Your task to perform on an android device: empty trash in the gmail app Image 0: 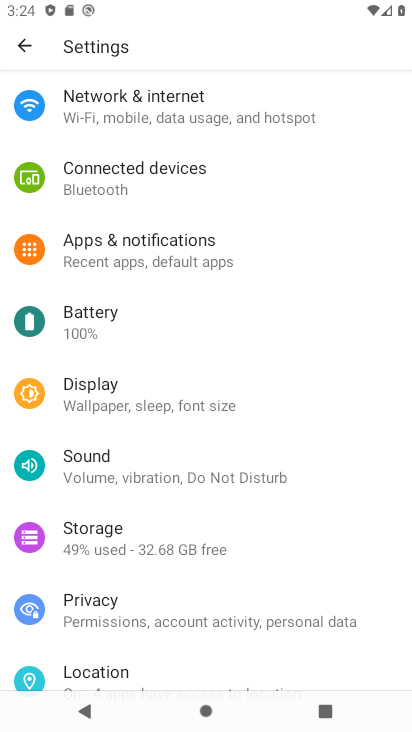
Step 0: press home button
Your task to perform on an android device: empty trash in the gmail app Image 1: 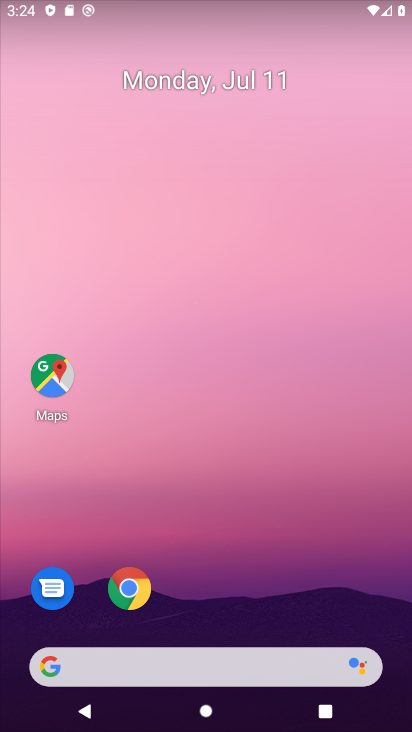
Step 1: drag from (359, 583) to (374, 110)
Your task to perform on an android device: empty trash in the gmail app Image 2: 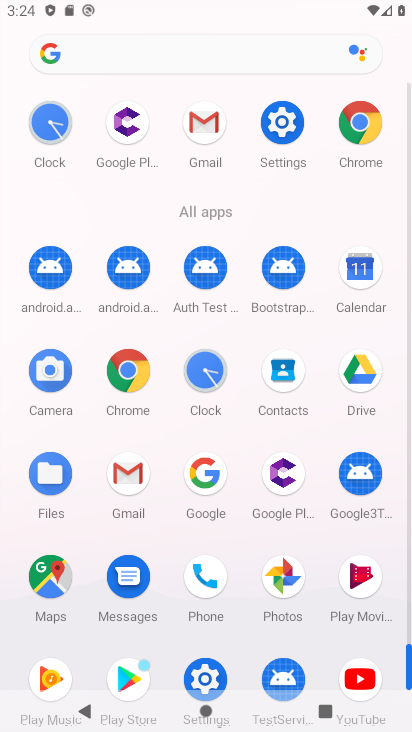
Step 2: click (142, 479)
Your task to perform on an android device: empty trash in the gmail app Image 3: 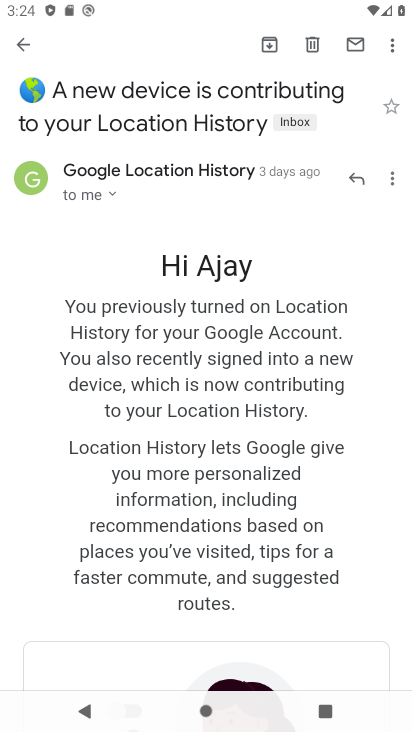
Step 3: press back button
Your task to perform on an android device: empty trash in the gmail app Image 4: 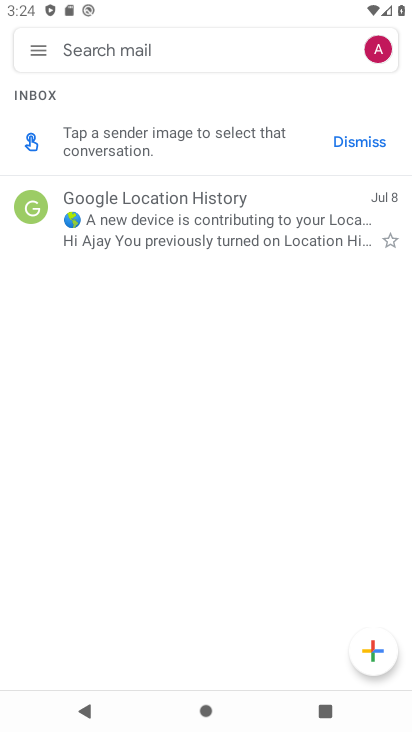
Step 4: click (34, 50)
Your task to perform on an android device: empty trash in the gmail app Image 5: 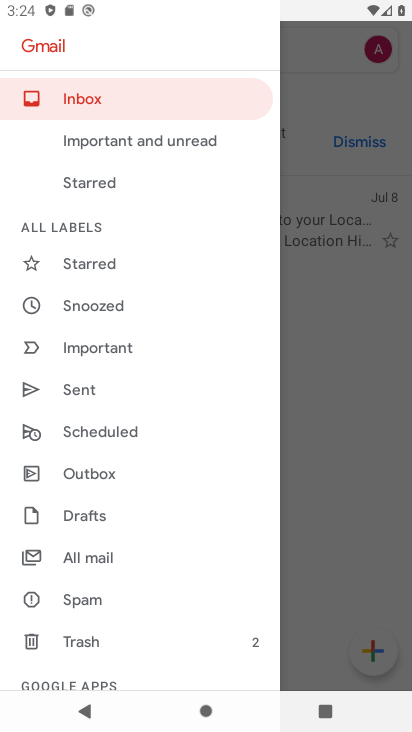
Step 5: drag from (211, 389) to (220, 313)
Your task to perform on an android device: empty trash in the gmail app Image 6: 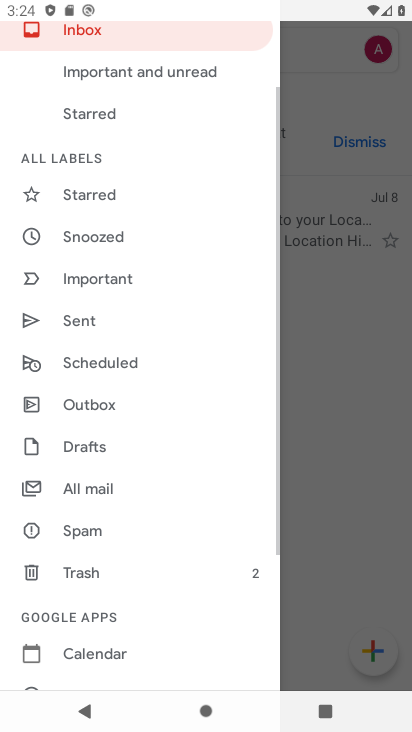
Step 6: drag from (204, 444) to (204, 274)
Your task to perform on an android device: empty trash in the gmail app Image 7: 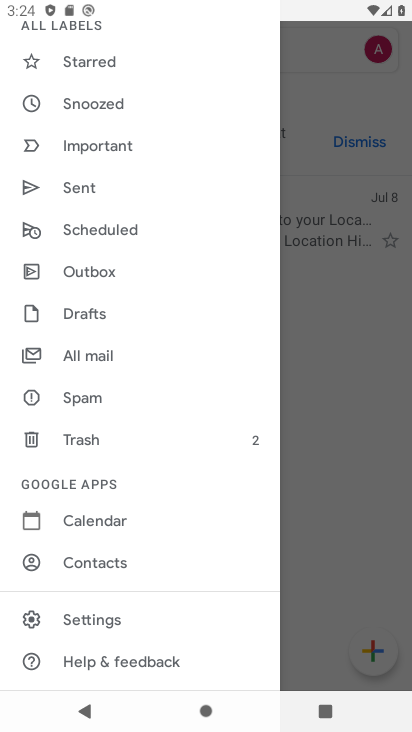
Step 7: click (97, 444)
Your task to perform on an android device: empty trash in the gmail app Image 8: 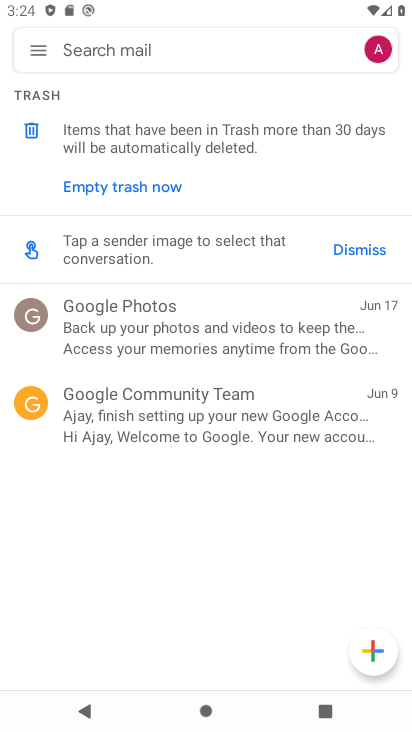
Step 8: click (170, 191)
Your task to perform on an android device: empty trash in the gmail app Image 9: 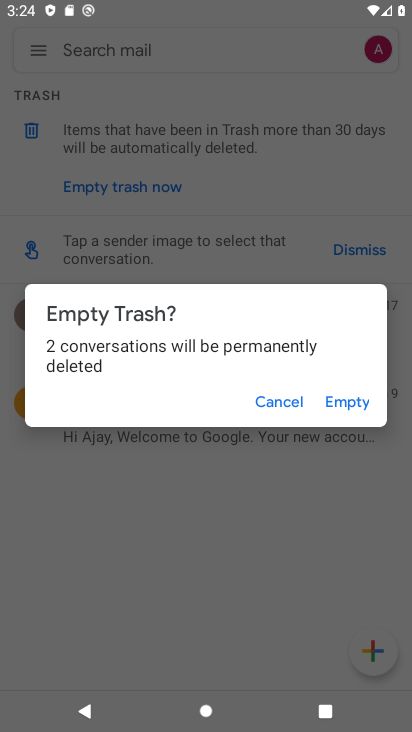
Step 9: click (336, 404)
Your task to perform on an android device: empty trash in the gmail app Image 10: 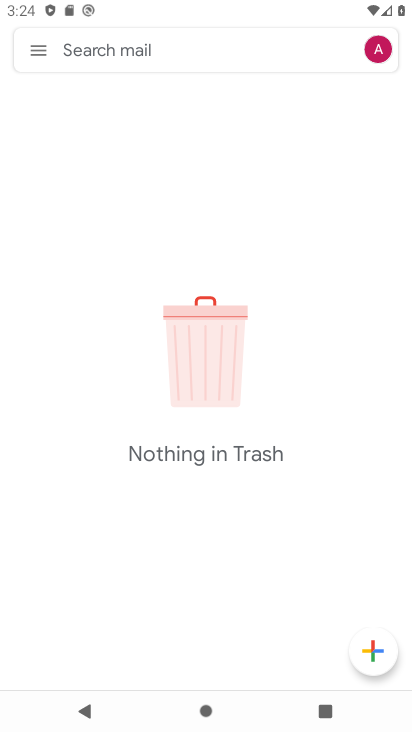
Step 10: task complete